Your task to perform on an android device: open device folders in google photos Image 0: 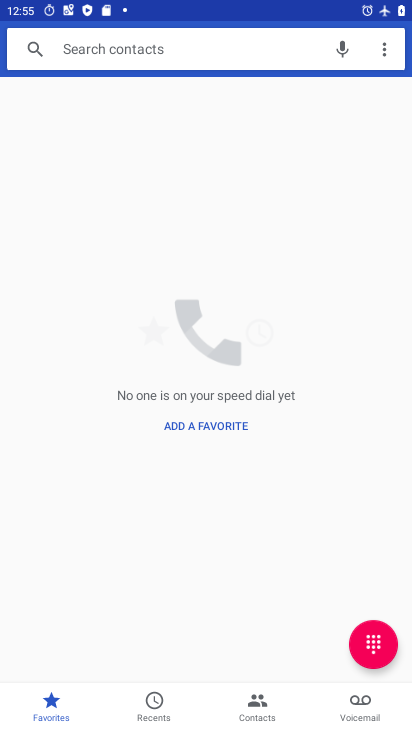
Step 0: press home button
Your task to perform on an android device: open device folders in google photos Image 1: 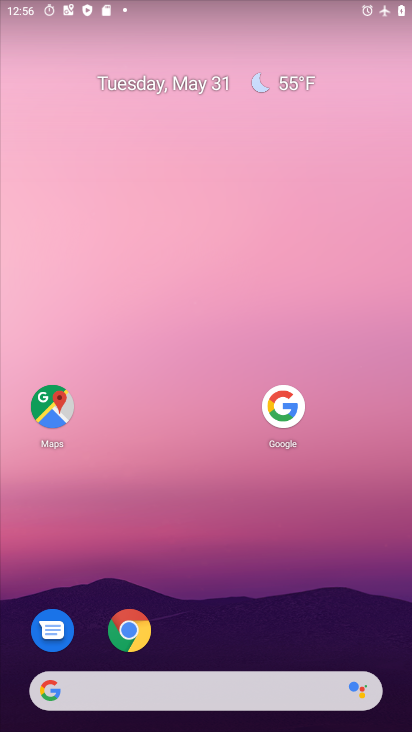
Step 1: drag from (248, 697) to (390, 303)
Your task to perform on an android device: open device folders in google photos Image 2: 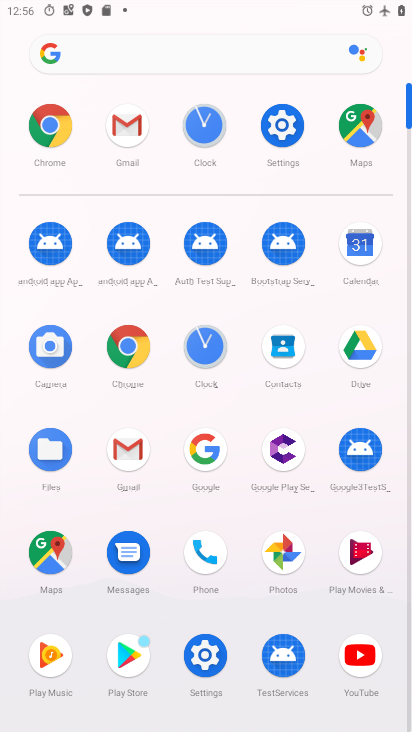
Step 2: click (282, 549)
Your task to perform on an android device: open device folders in google photos Image 3: 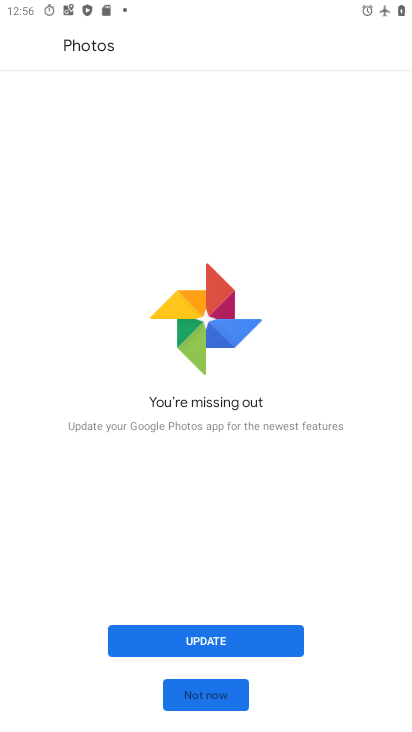
Step 3: click (218, 638)
Your task to perform on an android device: open device folders in google photos Image 4: 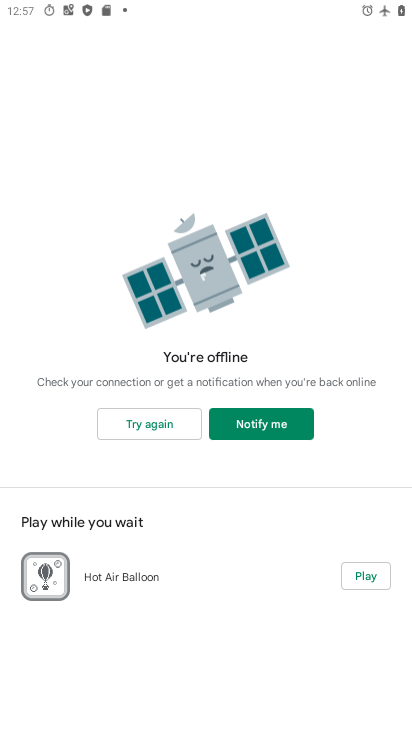
Step 4: task complete